Your task to perform on an android device: see creations saved in the google photos Image 0: 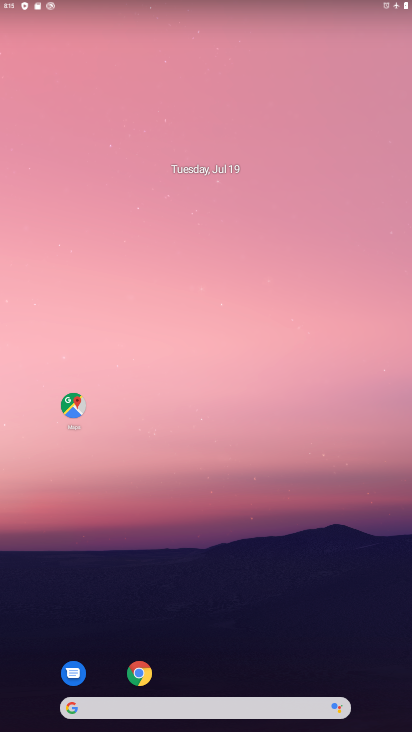
Step 0: drag from (219, 627) to (208, 150)
Your task to perform on an android device: see creations saved in the google photos Image 1: 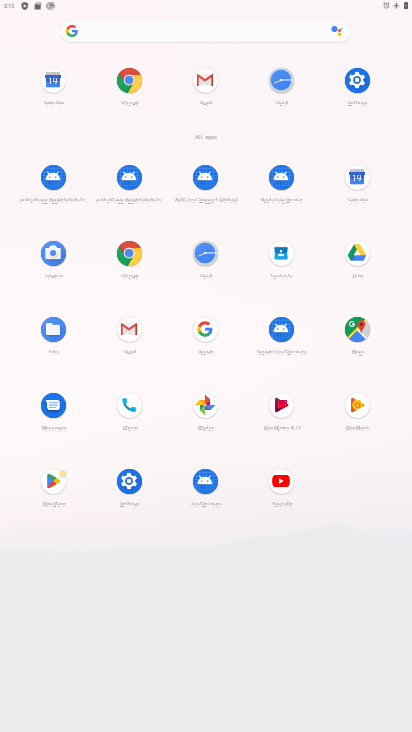
Step 1: click (207, 404)
Your task to perform on an android device: see creations saved in the google photos Image 2: 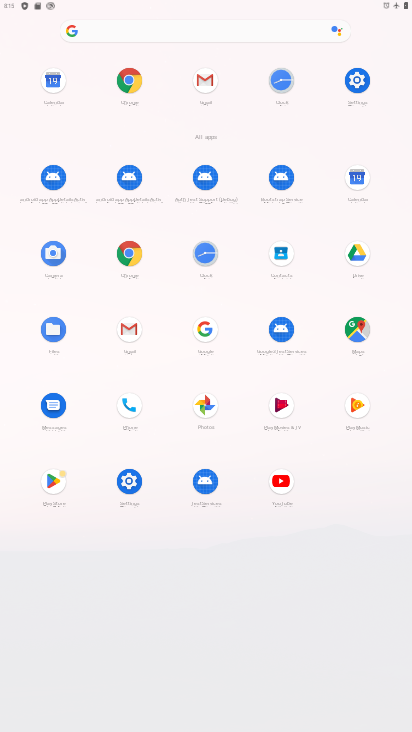
Step 2: click (207, 405)
Your task to perform on an android device: see creations saved in the google photos Image 3: 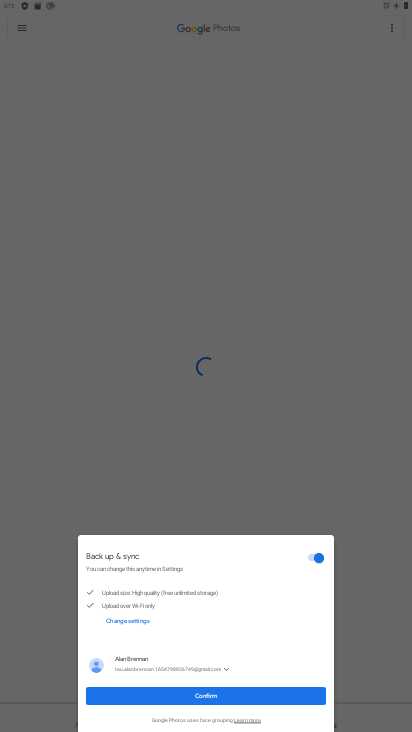
Step 3: press back button
Your task to perform on an android device: see creations saved in the google photos Image 4: 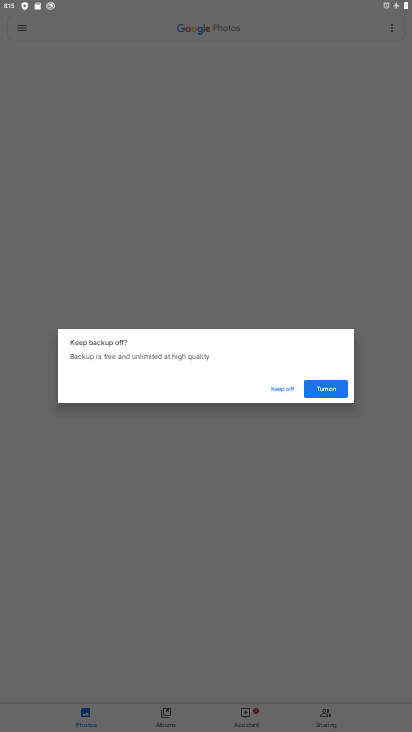
Step 4: click (319, 388)
Your task to perform on an android device: see creations saved in the google photos Image 5: 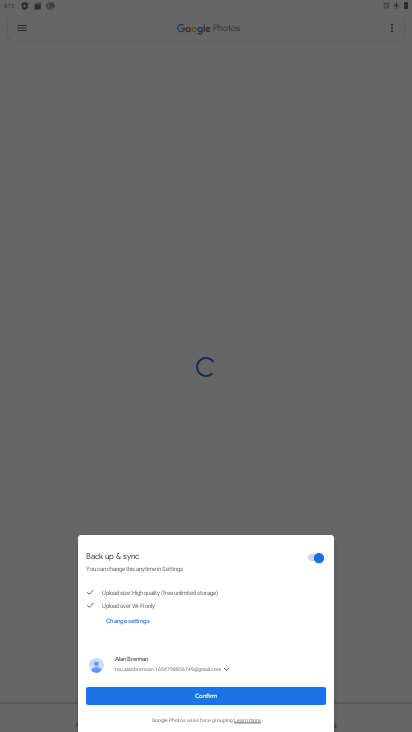
Step 5: click (206, 678)
Your task to perform on an android device: see creations saved in the google photos Image 6: 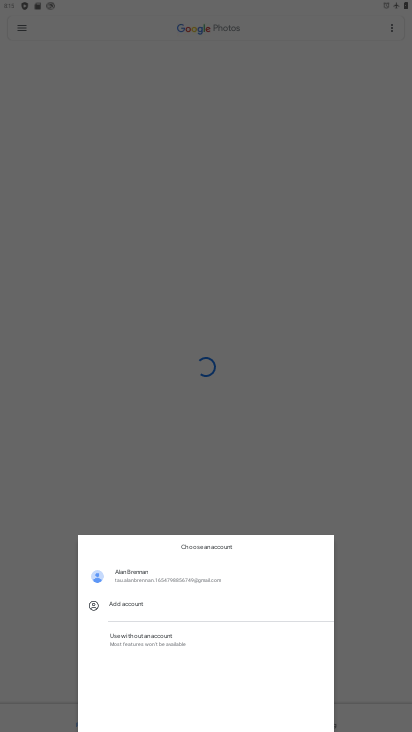
Step 6: click (209, 688)
Your task to perform on an android device: see creations saved in the google photos Image 7: 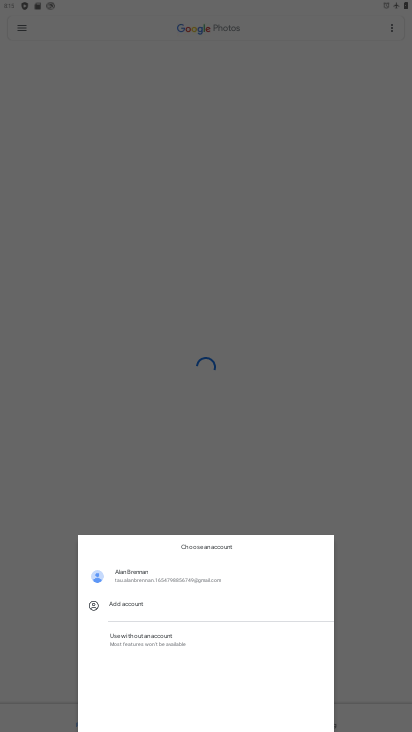
Step 7: press back button
Your task to perform on an android device: see creations saved in the google photos Image 8: 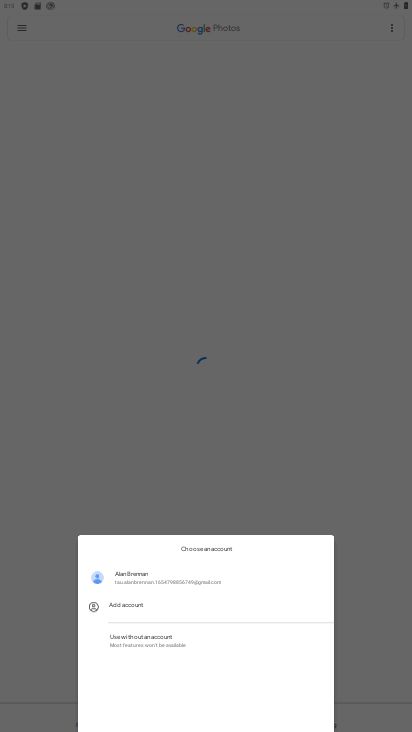
Step 8: press back button
Your task to perform on an android device: see creations saved in the google photos Image 9: 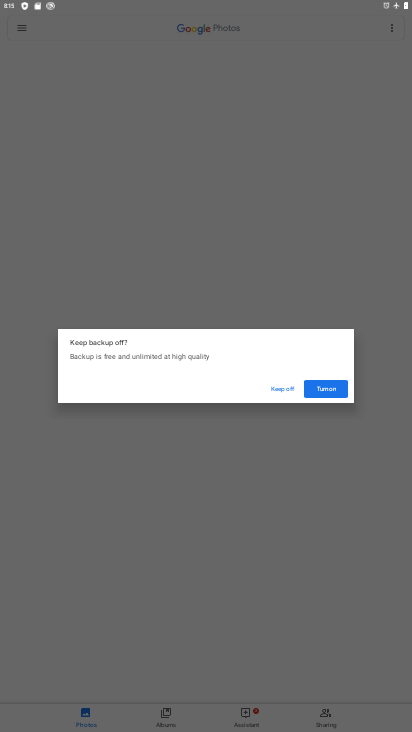
Step 9: click (281, 382)
Your task to perform on an android device: see creations saved in the google photos Image 10: 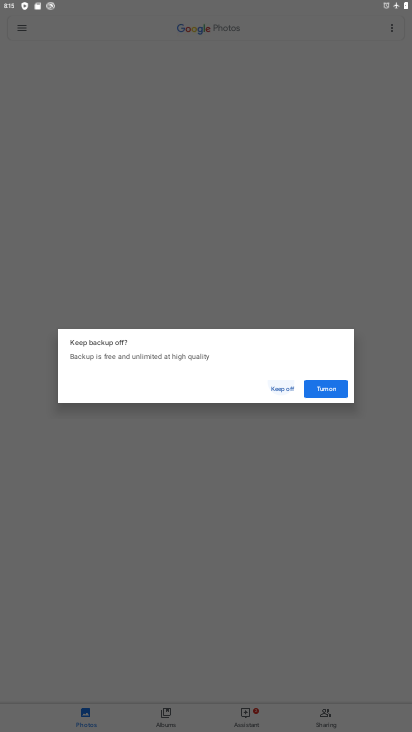
Step 10: click (236, 212)
Your task to perform on an android device: see creations saved in the google photos Image 11: 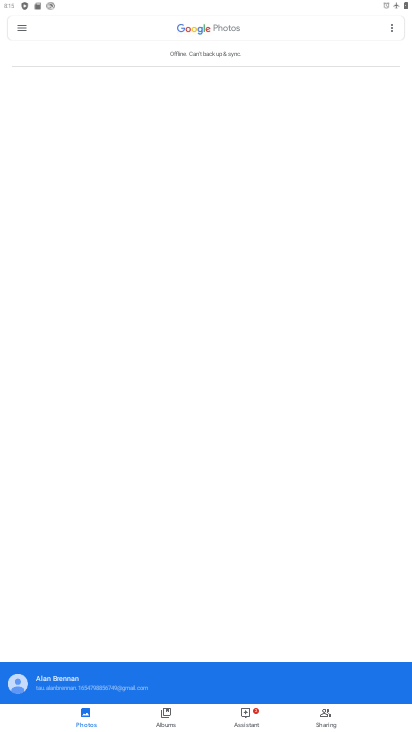
Step 11: click (249, 210)
Your task to perform on an android device: see creations saved in the google photos Image 12: 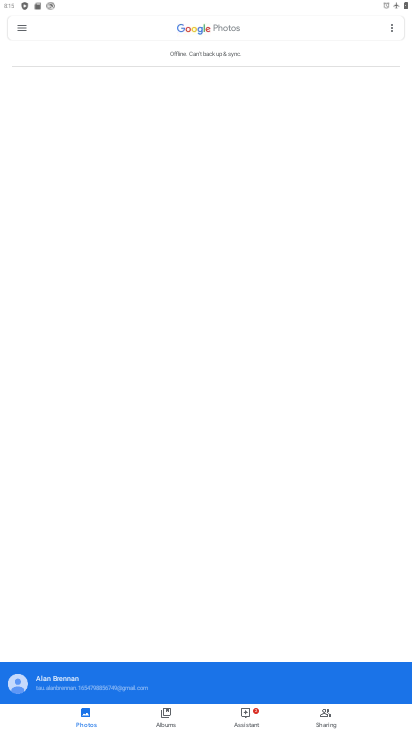
Step 12: click (249, 210)
Your task to perform on an android device: see creations saved in the google photos Image 13: 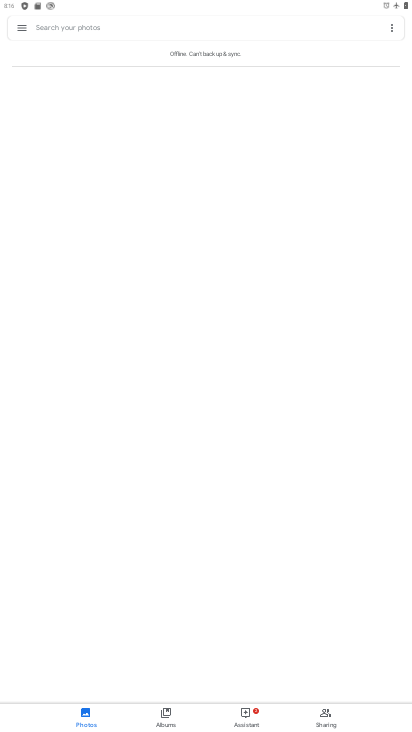
Step 13: task complete